Your task to perform on an android device: Turn off the flashlight Image 0: 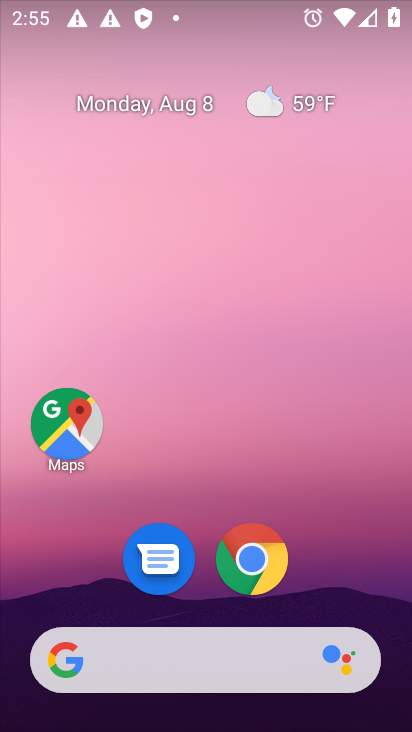
Step 0: drag from (219, 668) to (248, 161)
Your task to perform on an android device: Turn off the flashlight Image 1: 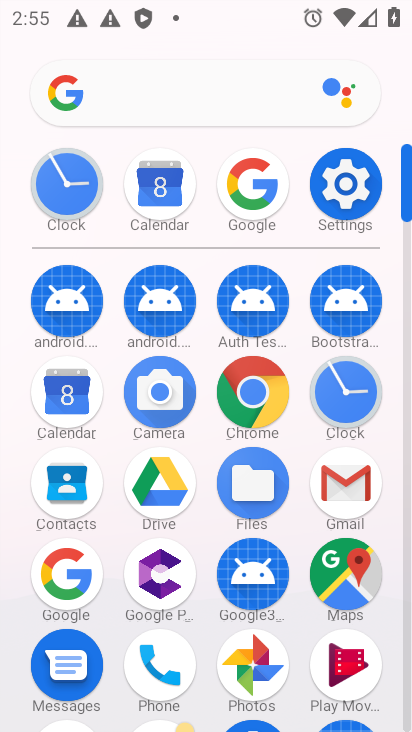
Step 1: click (347, 185)
Your task to perform on an android device: Turn off the flashlight Image 2: 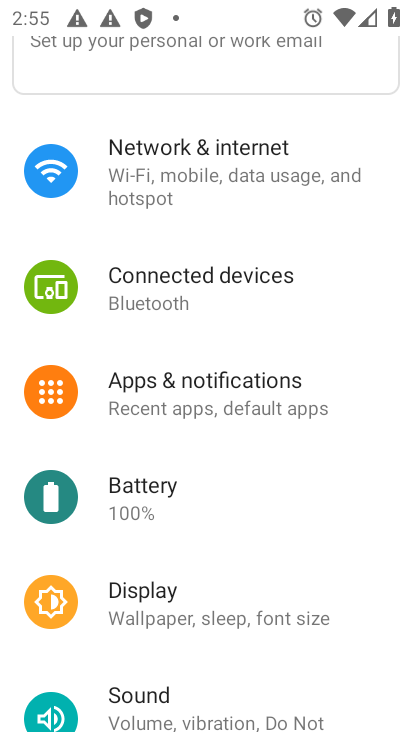
Step 2: click (160, 601)
Your task to perform on an android device: Turn off the flashlight Image 3: 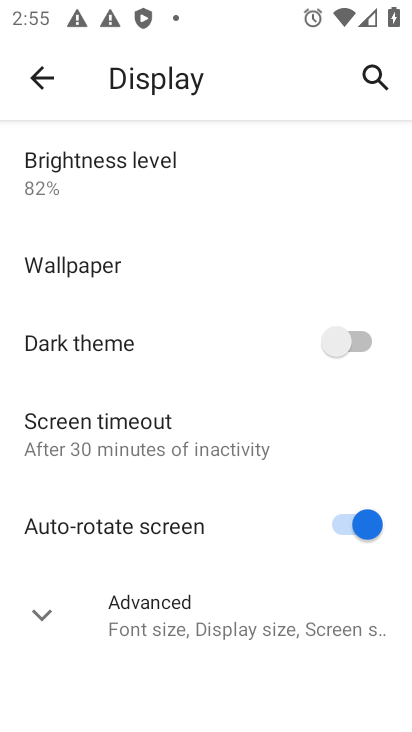
Step 3: click (379, 95)
Your task to perform on an android device: Turn off the flashlight Image 4: 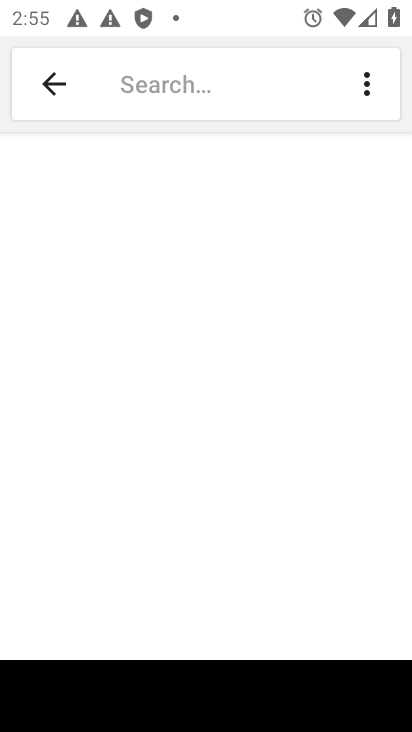
Step 4: type "flaslight"
Your task to perform on an android device: Turn off the flashlight Image 5: 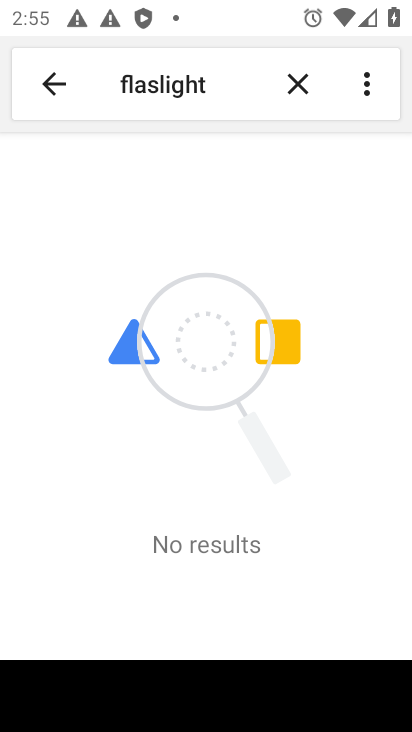
Step 5: task complete